Your task to perform on an android device: What's the weather going to be tomorrow? Image 0: 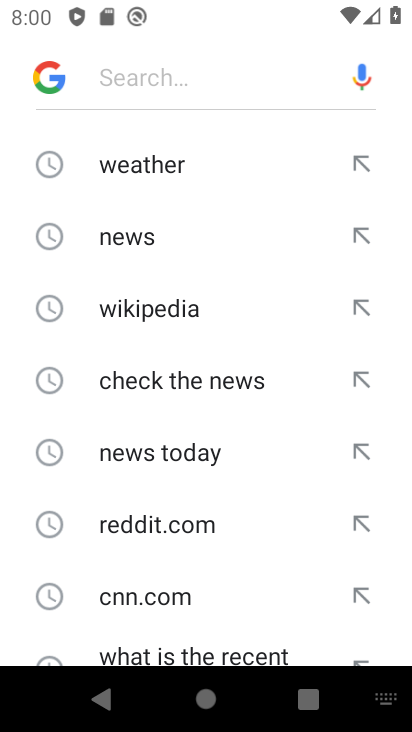
Step 0: click (175, 168)
Your task to perform on an android device: What's the weather going to be tomorrow? Image 1: 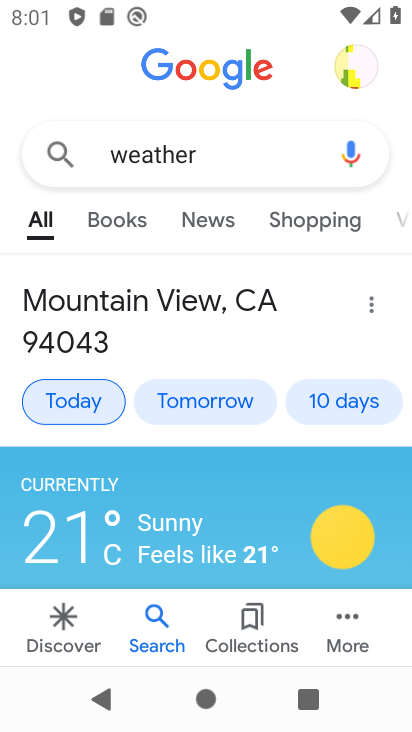
Step 1: click (179, 414)
Your task to perform on an android device: What's the weather going to be tomorrow? Image 2: 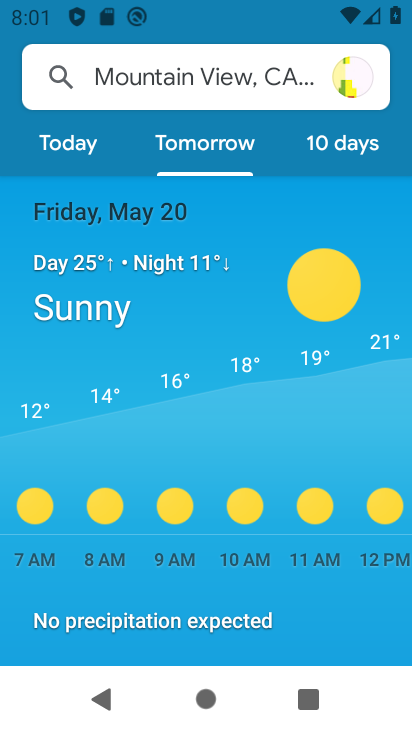
Step 2: task complete